Your task to perform on an android device: turn on airplane mode Image 0: 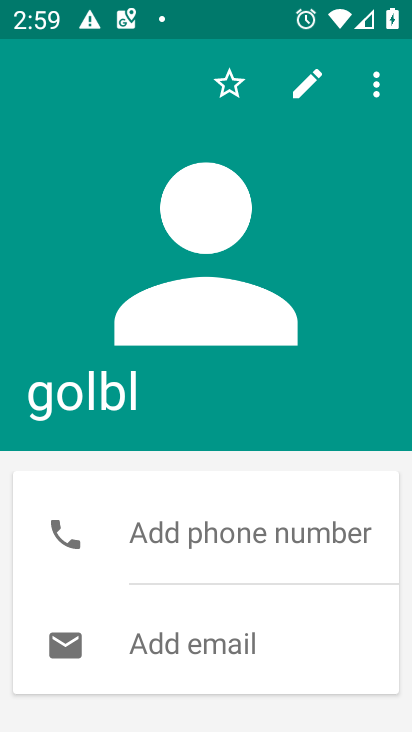
Step 0: press home button
Your task to perform on an android device: turn on airplane mode Image 1: 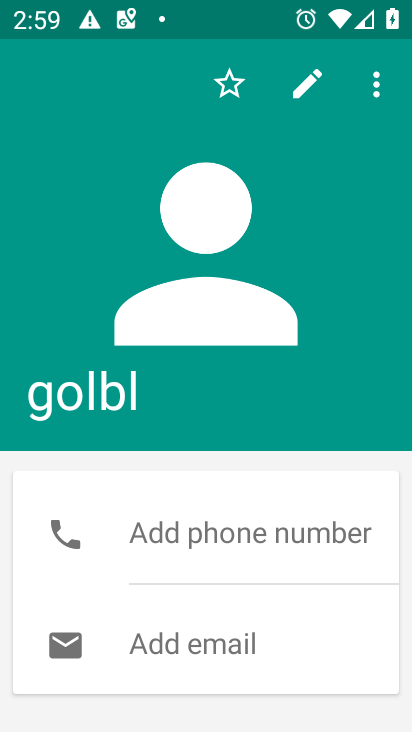
Step 1: press home button
Your task to perform on an android device: turn on airplane mode Image 2: 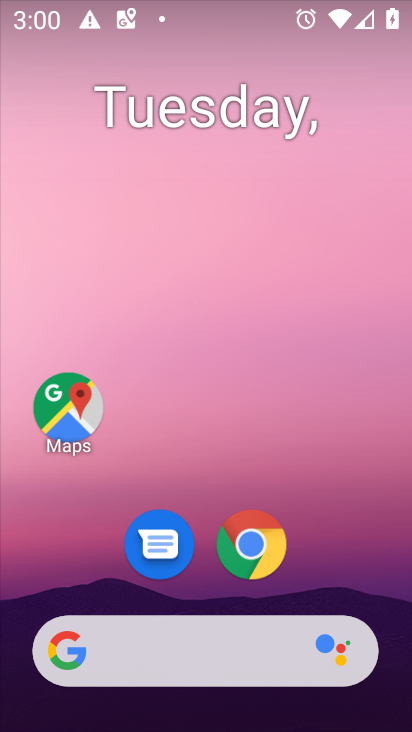
Step 2: drag from (325, 510) to (239, 68)
Your task to perform on an android device: turn on airplane mode Image 3: 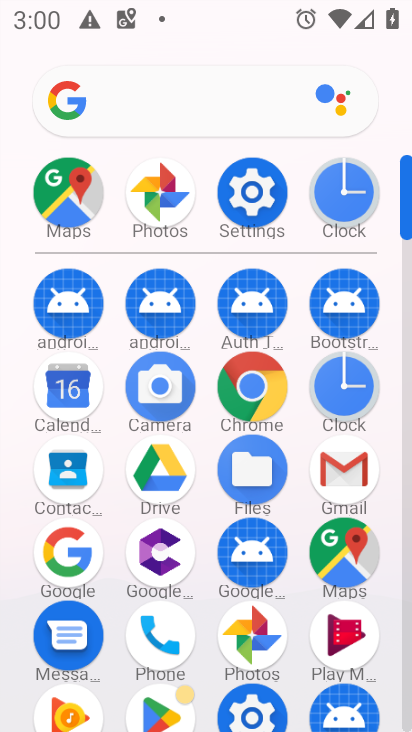
Step 3: click (265, 713)
Your task to perform on an android device: turn on airplane mode Image 4: 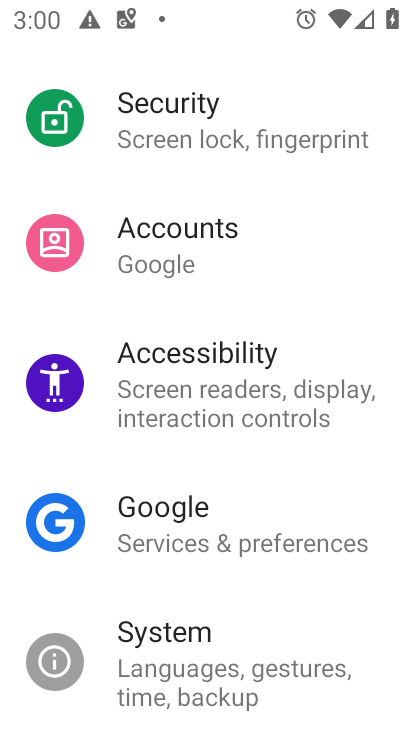
Step 4: drag from (285, 207) to (300, 668)
Your task to perform on an android device: turn on airplane mode Image 5: 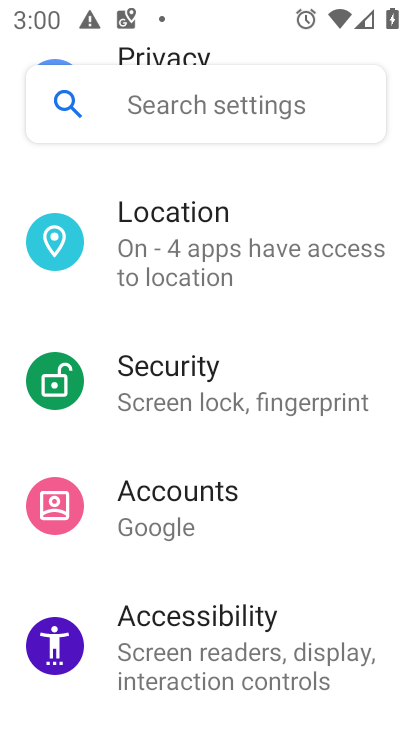
Step 5: drag from (236, 258) to (257, 727)
Your task to perform on an android device: turn on airplane mode Image 6: 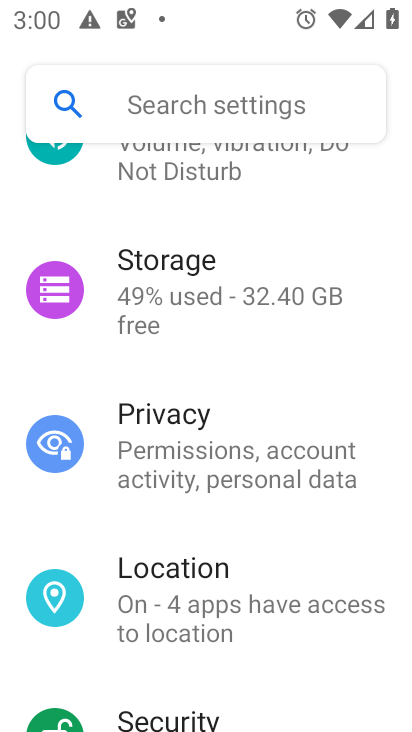
Step 6: drag from (260, 214) to (268, 637)
Your task to perform on an android device: turn on airplane mode Image 7: 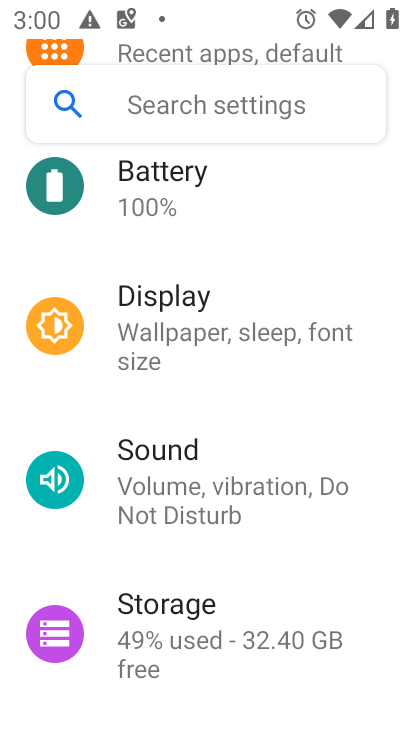
Step 7: drag from (259, 215) to (259, 603)
Your task to perform on an android device: turn on airplane mode Image 8: 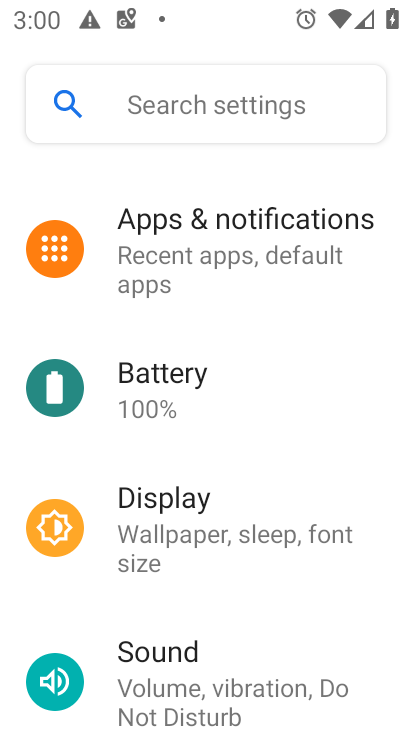
Step 8: drag from (270, 401) to (305, 726)
Your task to perform on an android device: turn on airplane mode Image 9: 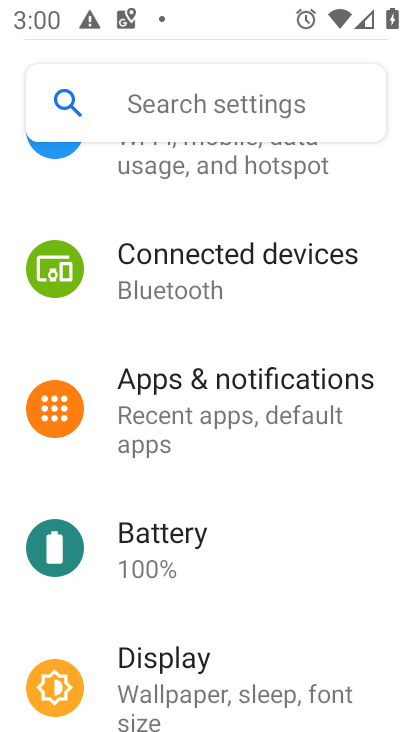
Step 9: drag from (307, 211) to (290, 687)
Your task to perform on an android device: turn on airplane mode Image 10: 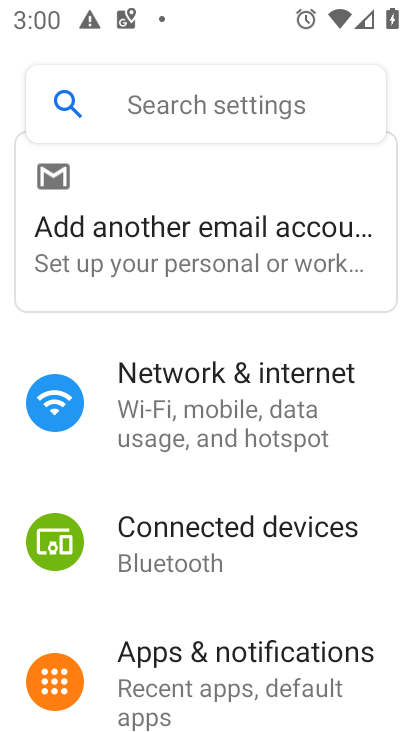
Step 10: click (243, 417)
Your task to perform on an android device: turn on airplane mode Image 11: 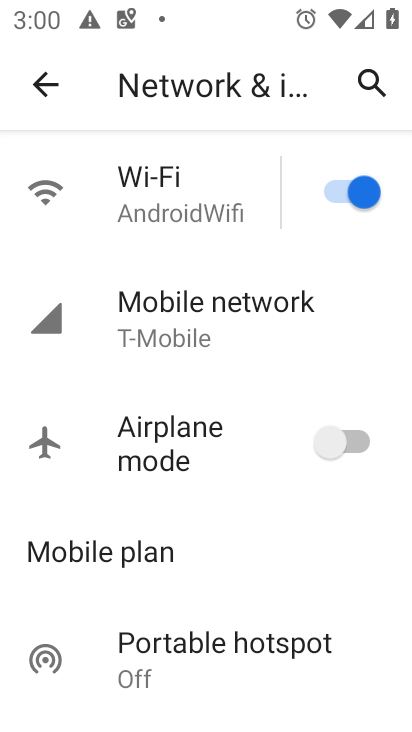
Step 11: click (310, 435)
Your task to perform on an android device: turn on airplane mode Image 12: 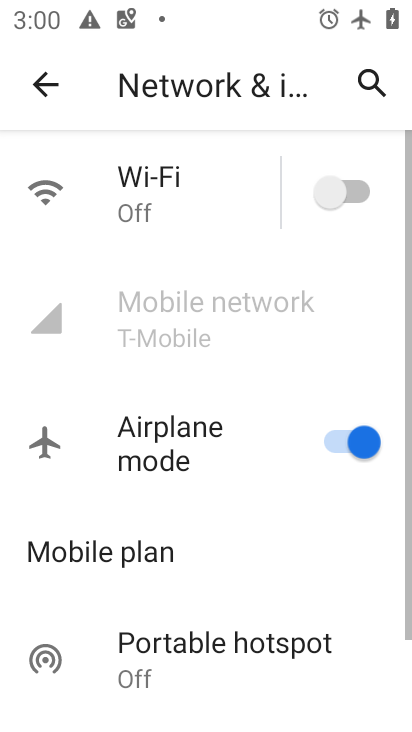
Step 12: task complete